Your task to perform on an android device: What is the news today? Image 0: 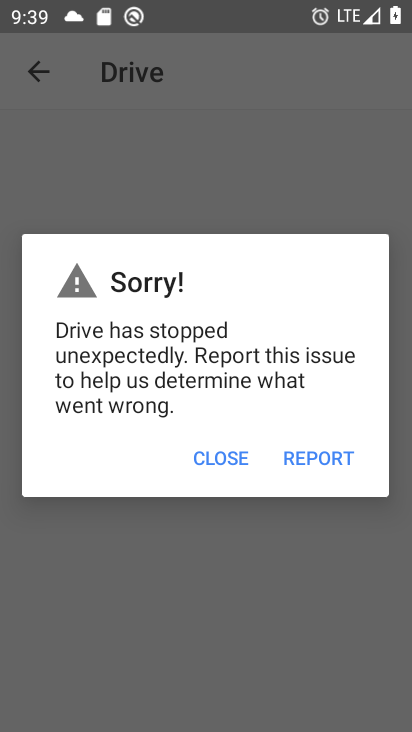
Step 0: press home button
Your task to perform on an android device: What is the news today? Image 1: 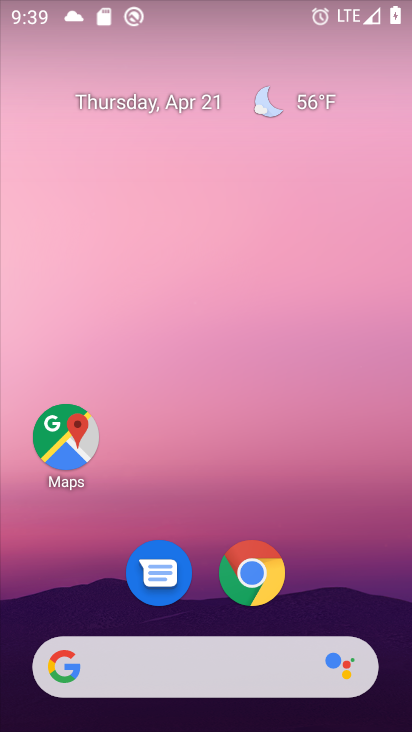
Step 1: drag from (198, 444) to (220, 17)
Your task to perform on an android device: What is the news today? Image 2: 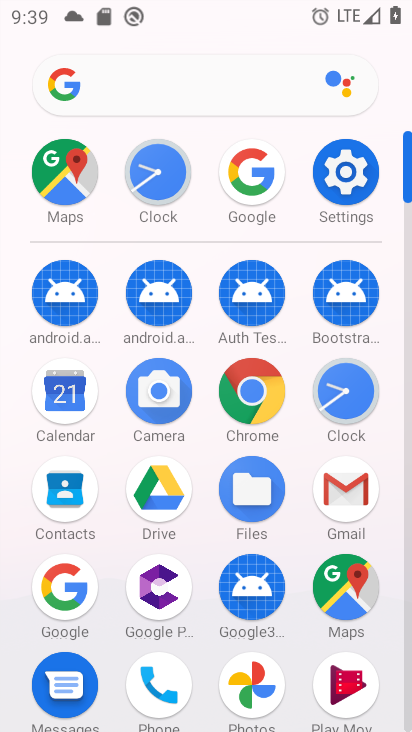
Step 2: click (251, 168)
Your task to perform on an android device: What is the news today? Image 3: 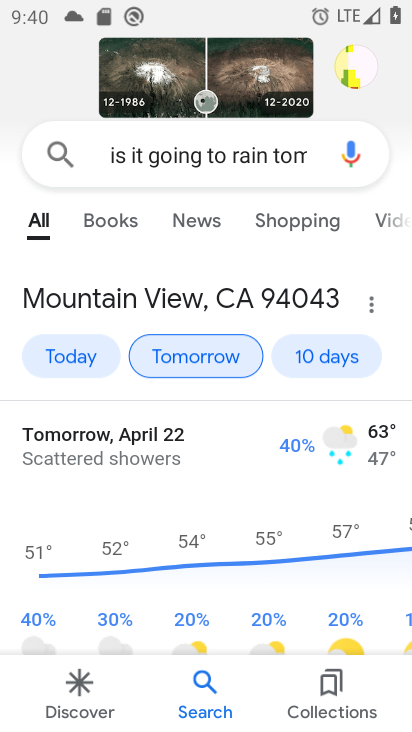
Step 3: click (307, 154)
Your task to perform on an android device: What is the news today? Image 4: 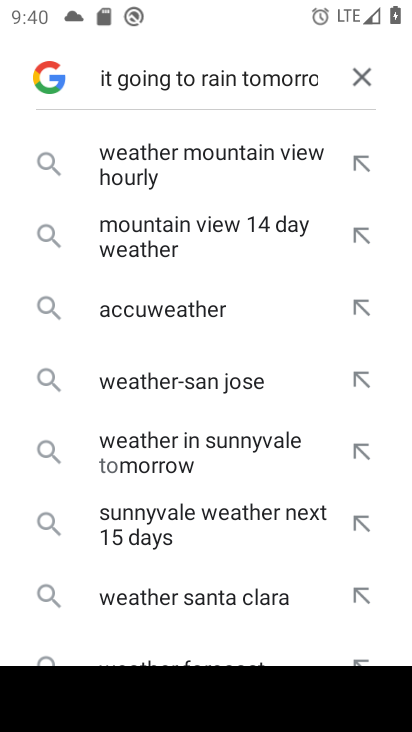
Step 4: click (365, 79)
Your task to perform on an android device: What is the news today? Image 5: 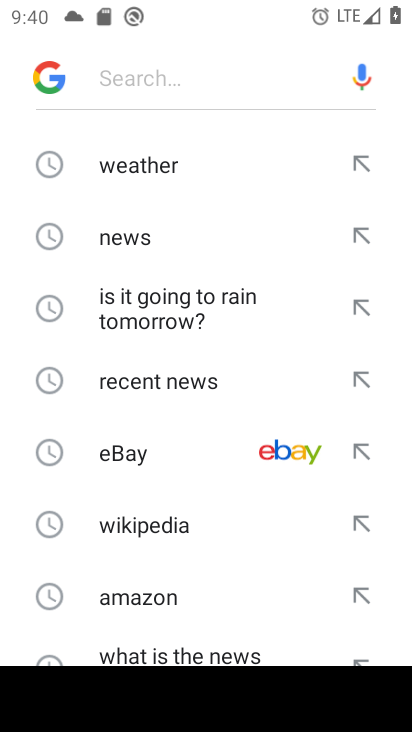
Step 5: drag from (203, 503) to (247, 369)
Your task to perform on an android device: What is the news today? Image 6: 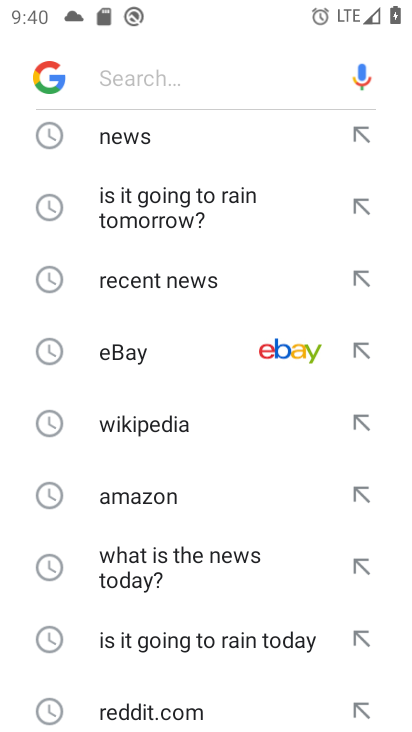
Step 6: click (169, 555)
Your task to perform on an android device: What is the news today? Image 7: 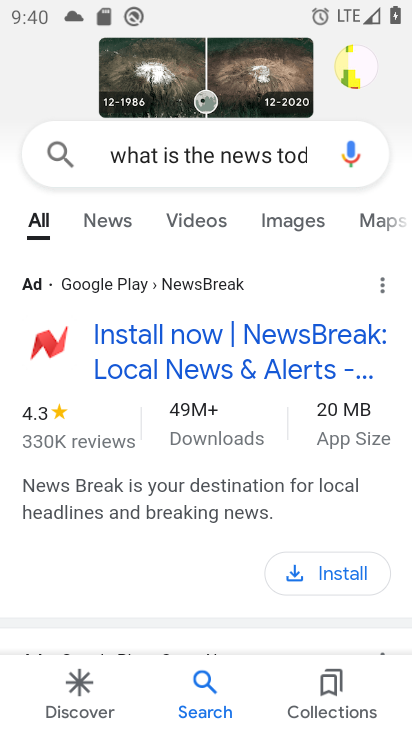
Step 7: task complete